Your task to perform on an android device: Open eBay Image 0: 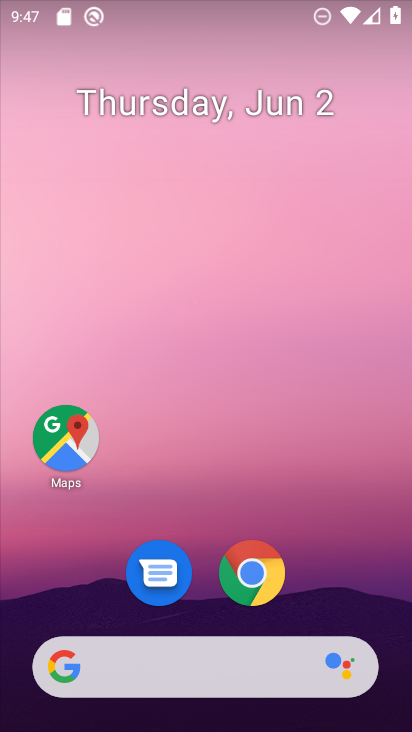
Step 0: click (250, 566)
Your task to perform on an android device: Open eBay Image 1: 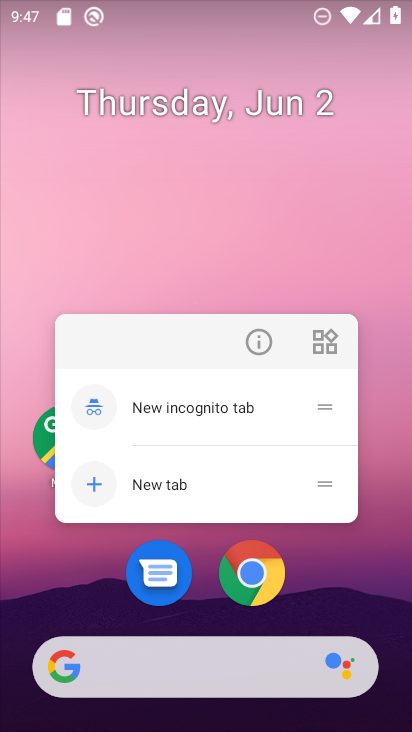
Step 1: click (249, 574)
Your task to perform on an android device: Open eBay Image 2: 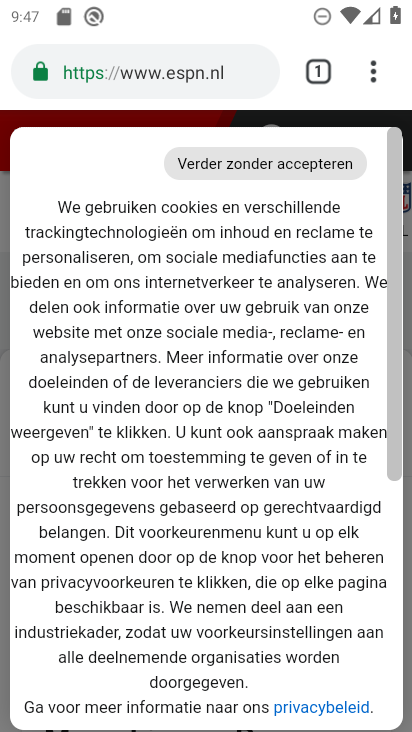
Step 2: click (242, 71)
Your task to perform on an android device: Open eBay Image 3: 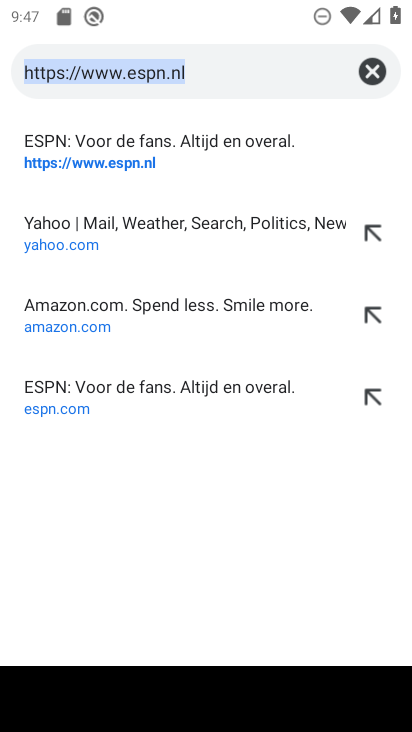
Step 3: type "ebay"
Your task to perform on an android device: Open eBay Image 4: 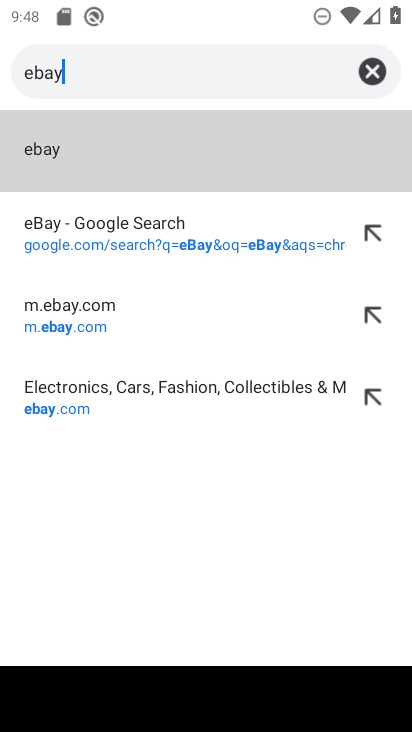
Step 4: click (70, 329)
Your task to perform on an android device: Open eBay Image 5: 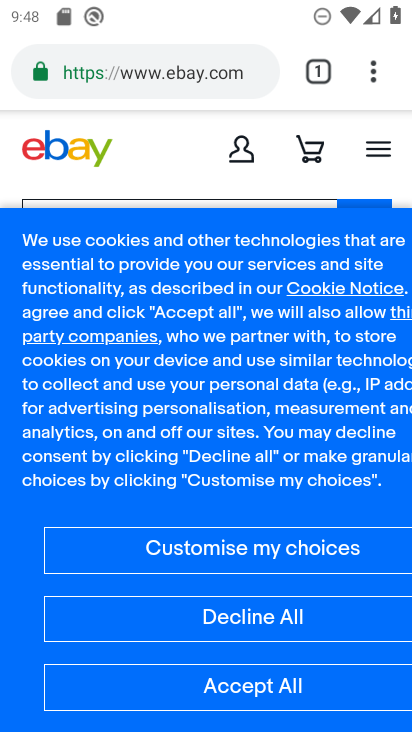
Step 5: task complete